Your task to perform on an android device: change the clock display to show seconds Image 0: 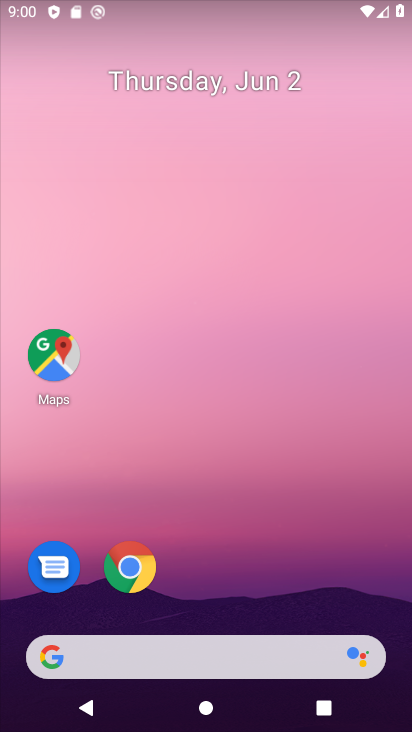
Step 0: drag from (299, 576) to (303, 196)
Your task to perform on an android device: change the clock display to show seconds Image 1: 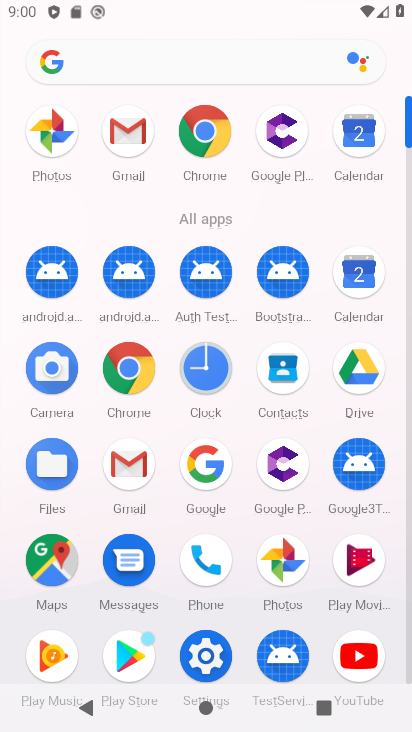
Step 1: click (198, 366)
Your task to perform on an android device: change the clock display to show seconds Image 2: 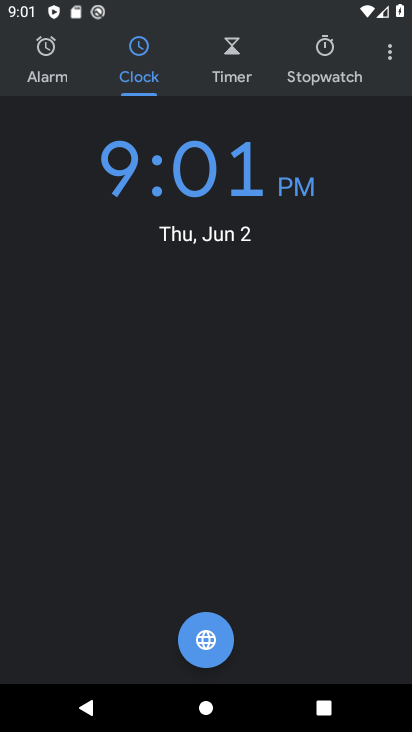
Step 2: click (397, 63)
Your task to perform on an android device: change the clock display to show seconds Image 3: 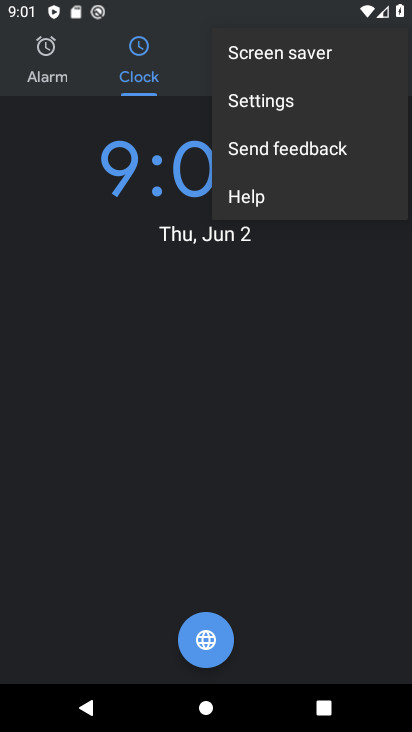
Step 3: click (310, 91)
Your task to perform on an android device: change the clock display to show seconds Image 4: 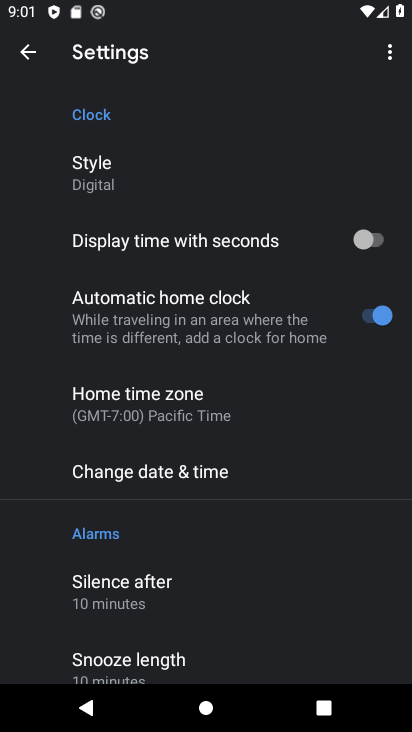
Step 4: click (374, 241)
Your task to perform on an android device: change the clock display to show seconds Image 5: 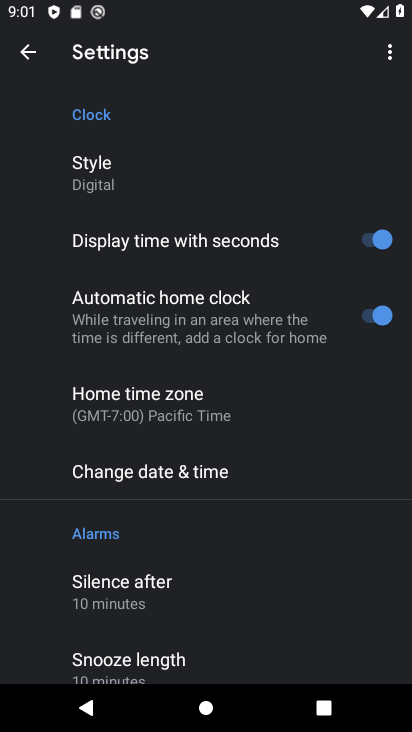
Step 5: task complete